Your task to perform on an android device: Open privacy settings Image 0: 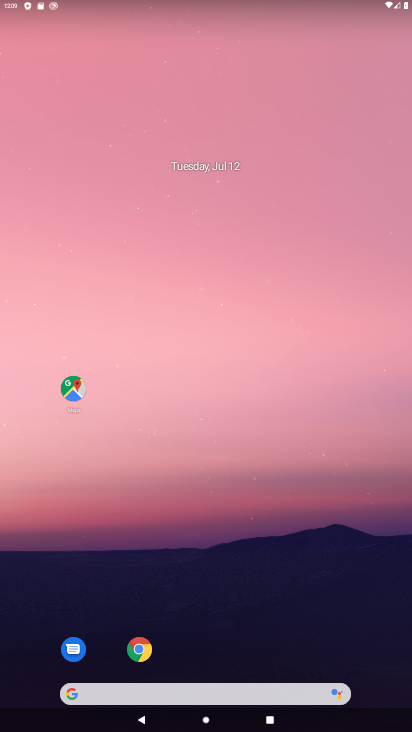
Step 0: drag from (308, 636) to (251, 142)
Your task to perform on an android device: Open privacy settings Image 1: 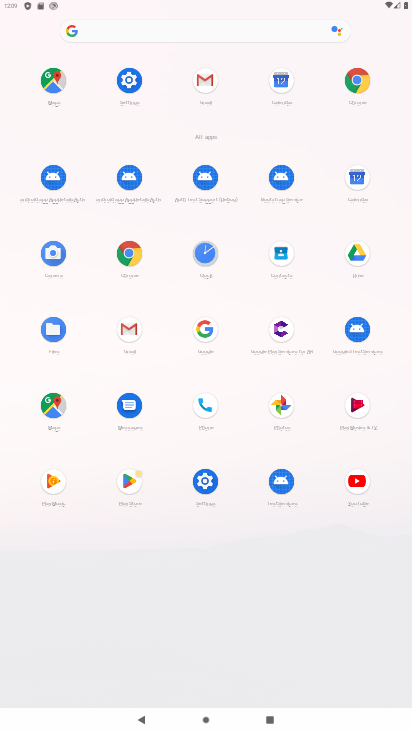
Step 1: click (136, 107)
Your task to perform on an android device: Open privacy settings Image 2: 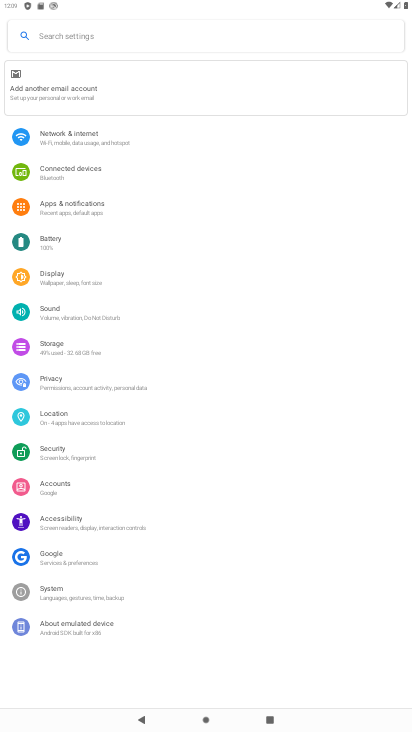
Step 2: click (114, 381)
Your task to perform on an android device: Open privacy settings Image 3: 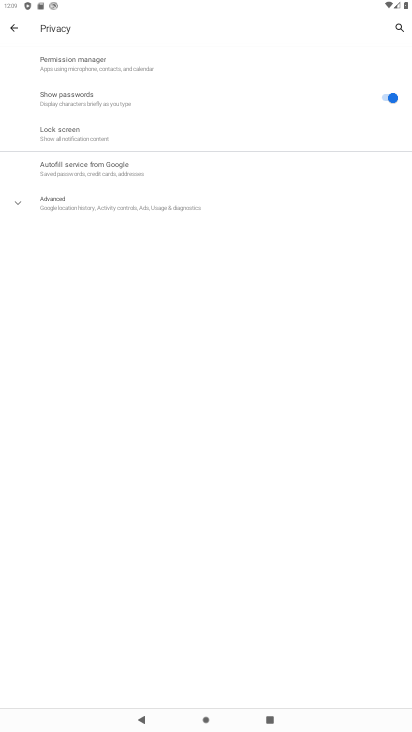
Step 3: click (91, 198)
Your task to perform on an android device: Open privacy settings Image 4: 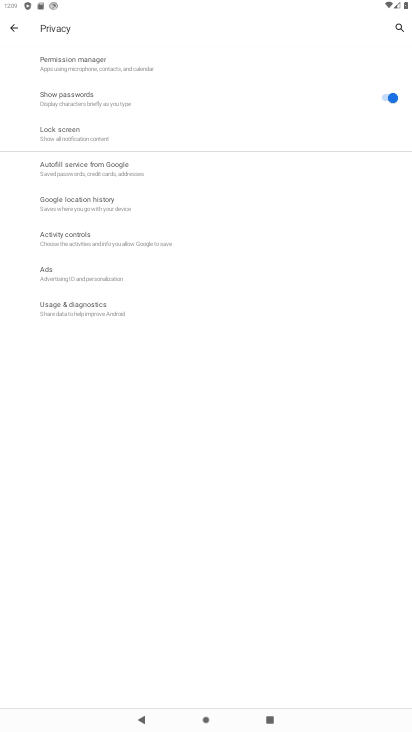
Step 4: click (19, 29)
Your task to perform on an android device: Open privacy settings Image 5: 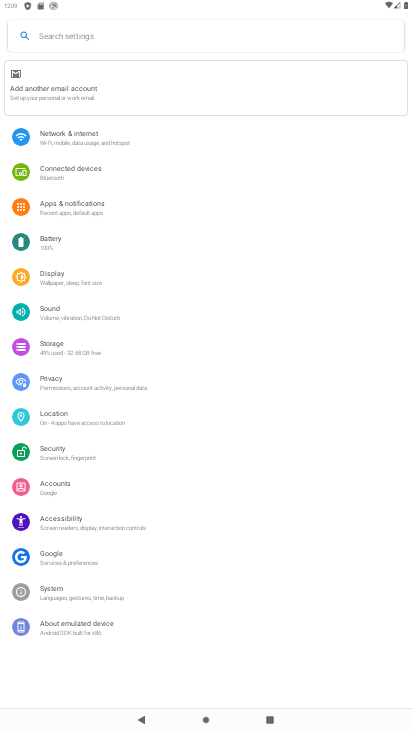
Step 5: task complete